Your task to perform on an android device: Open calendar and show me the second week of next month Image 0: 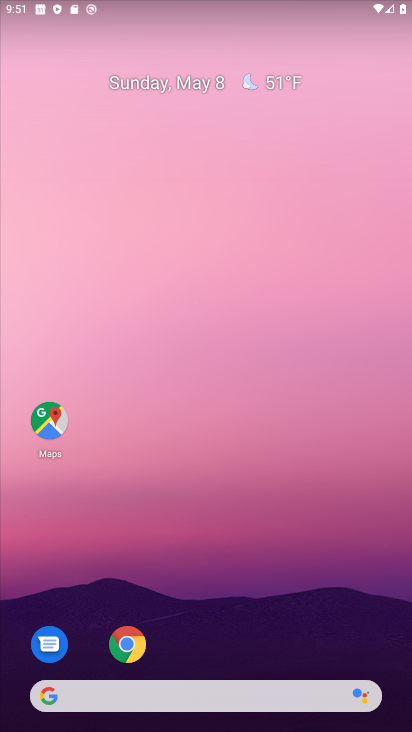
Step 0: drag from (212, 645) to (256, 280)
Your task to perform on an android device: Open calendar and show me the second week of next month Image 1: 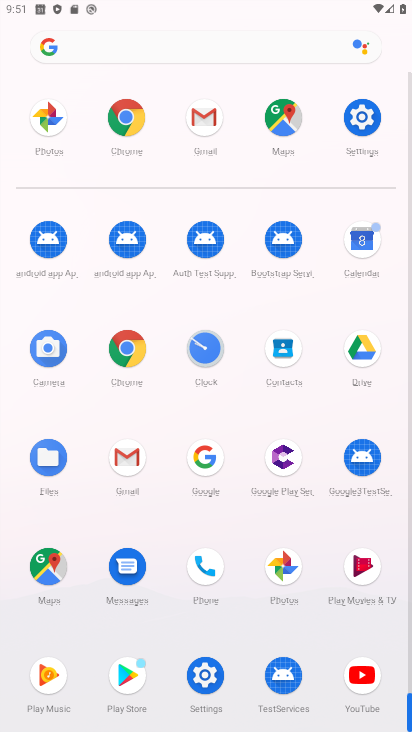
Step 1: click (361, 237)
Your task to perform on an android device: Open calendar and show me the second week of next month Image 2: 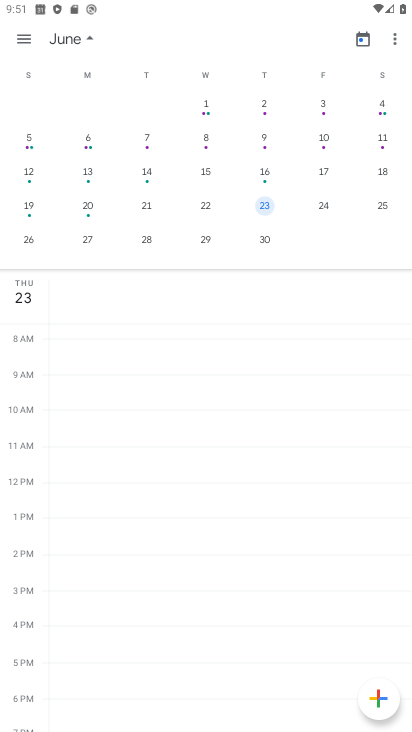
Step 2: click (64, 40)
Your task to perform on an android device: Open calendar and show me the second week of next month Image 3: 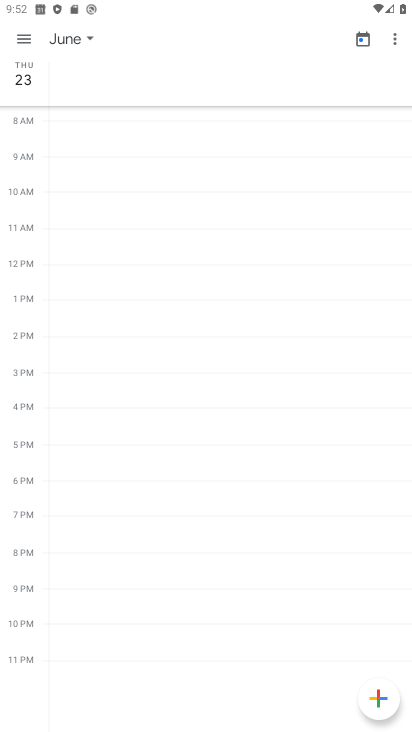
Step 3: click (67, 35)
Your task to perform on an android device: Open calendar and show me the second week of next month Image 4: 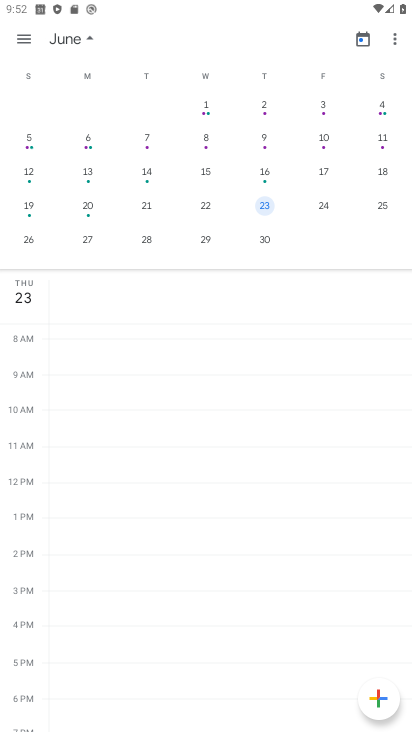
Step 4: click (26, 41)
Your task to perform on an android device: Open calendar and show me the second week of next month Image 5: 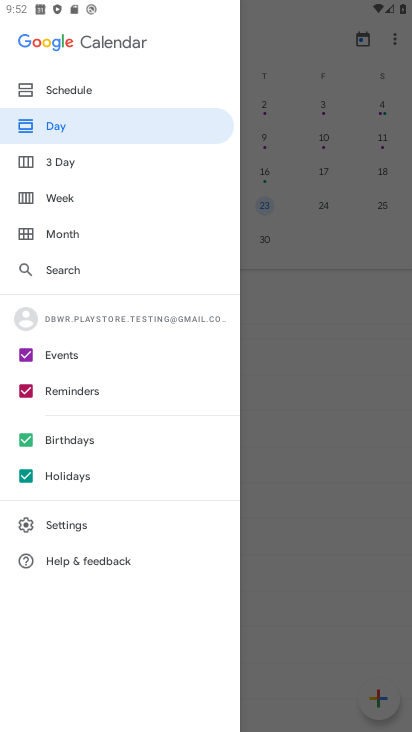
Step 5: click (69, 199)
Your task to perform on an android device: Open calendar and show me the second week of next month Image 6: 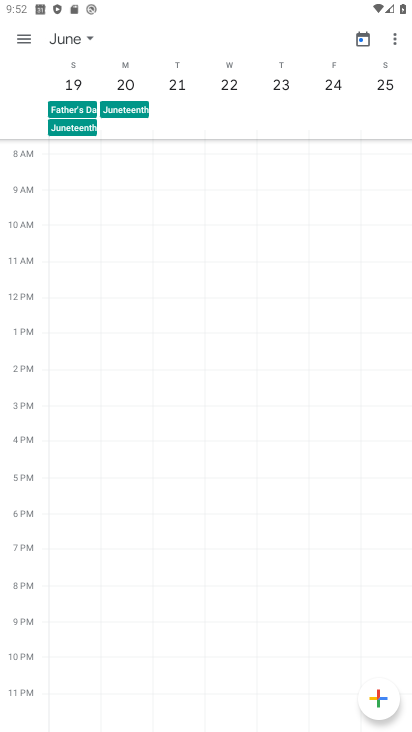
Step 6: drag from (335, 90) to (22, 131)
Your task to perform on an android device: Open calendar and show me the second week of next month Image 7: 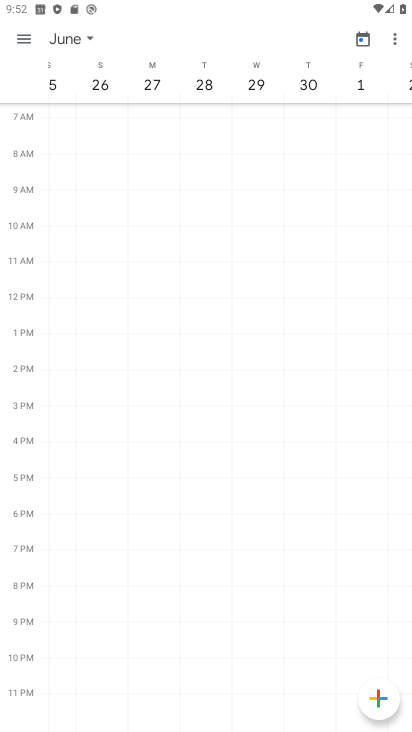
Step 7: drag from (113, 78) to (411, 74)
Your task to perform on an android device: Open calendar and show me the second week of next month Image 8: 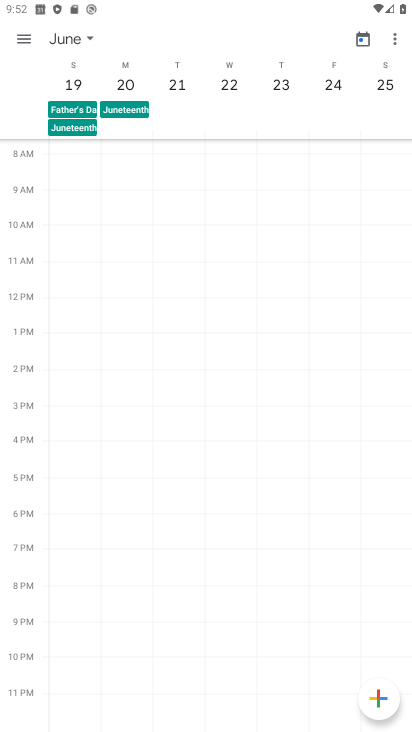
Step 8: drag from (140, 88) to (410, 108)
Your task to perform on an android device: Open calendar and show me the second week of next month Image 9: 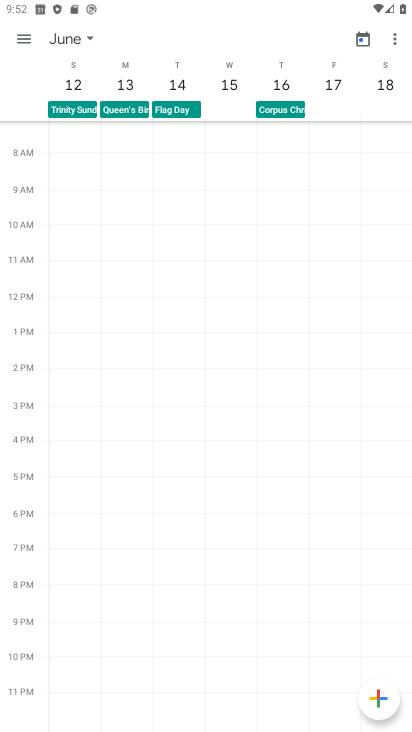
Step 9: drag from (66, 86) to (411, 87)
Your task to perform on an android device: Open calendar and show me the second week of next month Image 10: 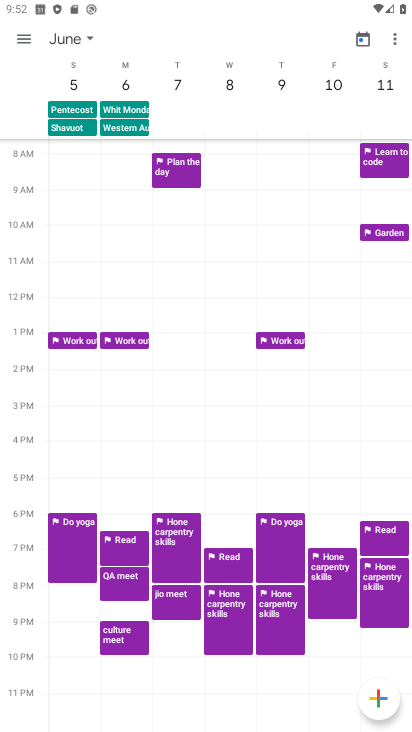
Step 10: click (245, 81)
Your task to perform on an android device: Open calendar and show me the second week of next month Image 11: 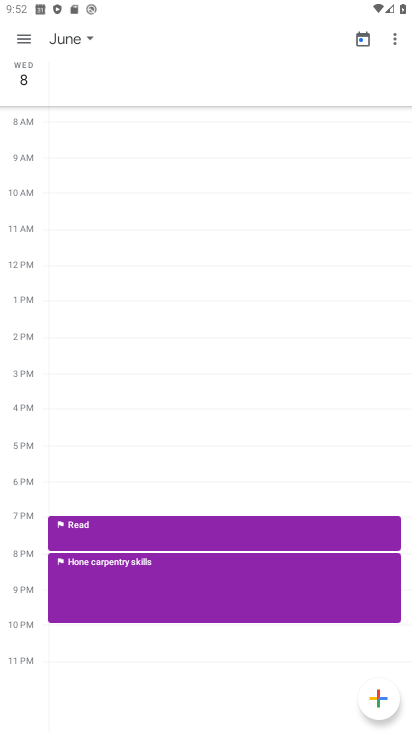
Step 11: task complete